Your task to perform on an android device: Open settings on Google Maps Image 0: 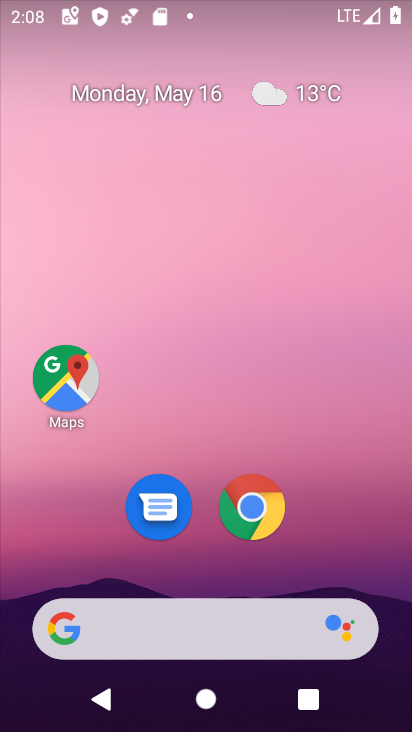
Step 0: click (72, 370)
Your task to perform on an android device: Open settings on Google Maps Image 1: 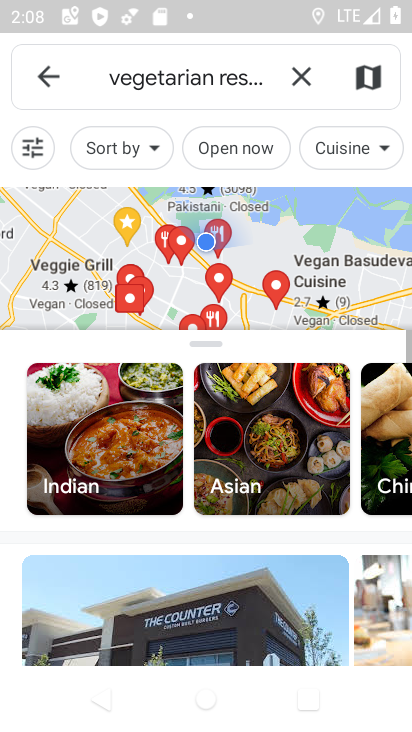
Step 1: click (300, 76)
Your task to perform on an android device: Open settings on Google Maps Image 2: 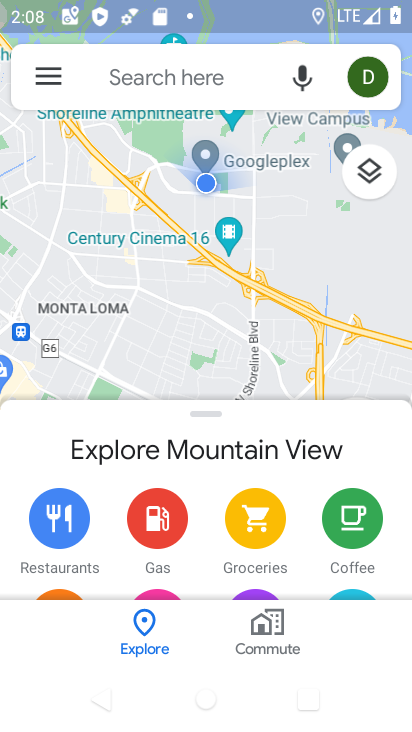
Step 2: click (45, 76)
Your task to perform on an android device: Open settings on Google Maps Image 3: 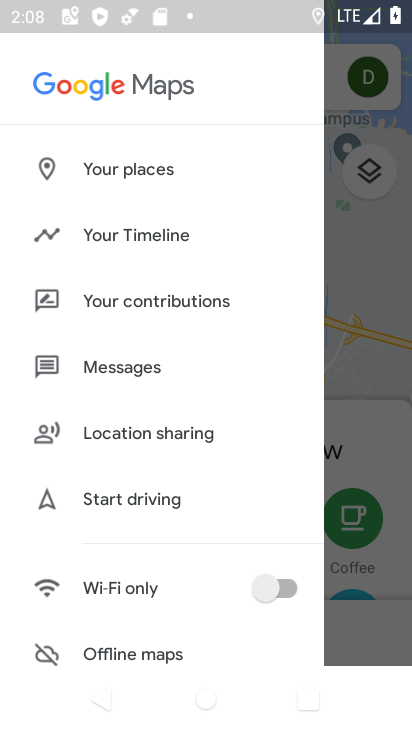
Step 3: drag from (192, 612) to (167, 186)
Your task to perform on an android device: Open settings on Google Maps Image 4: 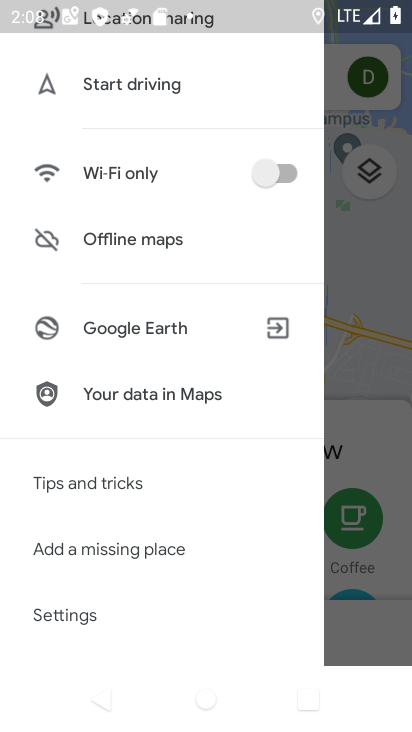
Step 4: click (84, 607)
Your task to perform on an android device: Open settings on Google Maps Image 5: 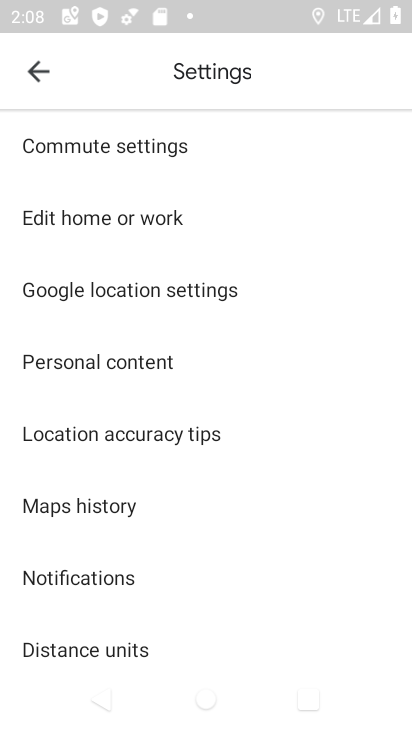
Step 5: task complete